Your task to perform on an android device: toggle data saver in the chrome app Image 0: 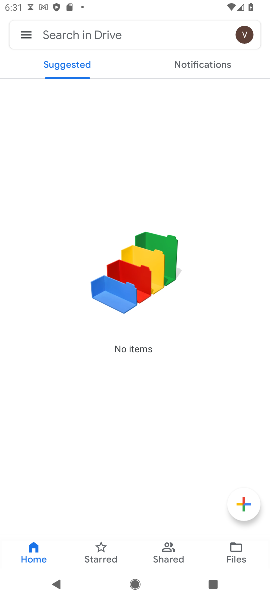
Step 0: press home button
Your task to perform on an android device: toggle data saver in the chrome app Image 1: 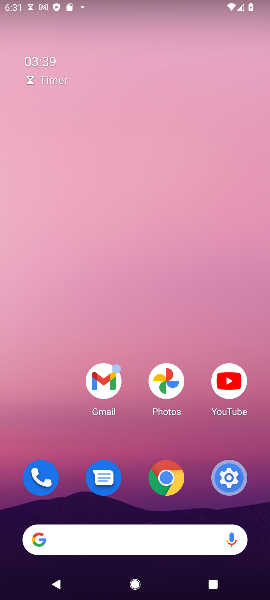
Step 1: drag from (162, 491) to (158, 193)
Your task to perform on an android device: toggle data saver in the chrome app Image 2: 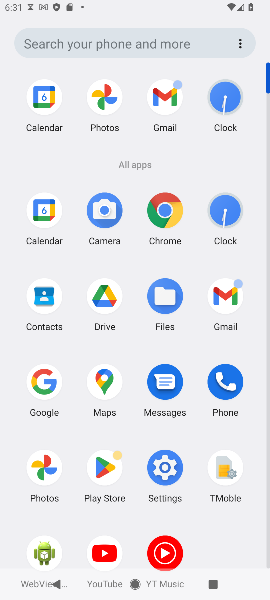
Step 2: click (160, 222)
Your task to perform on an android device: toggle data saver in the chrome app Image 3: 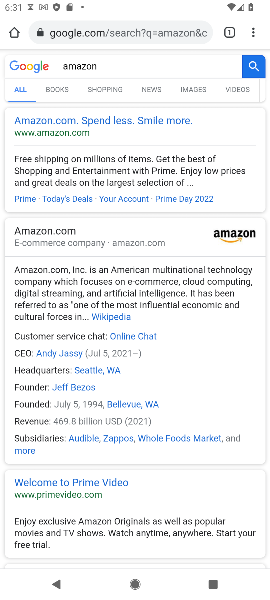
Step 3: click (255, 25)
Your task to perform on an android device: toggle data saver in the chrome app Image 4: 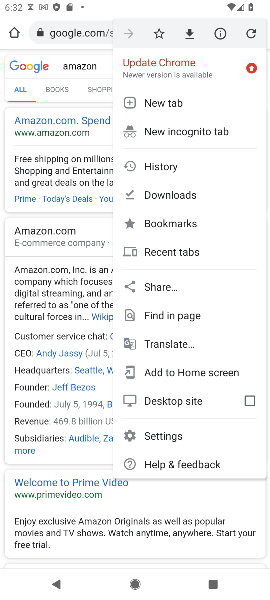
Step 4: click (153, 434)
Your task to perform on an android device: toggle data saver in the chrome app Image 5: 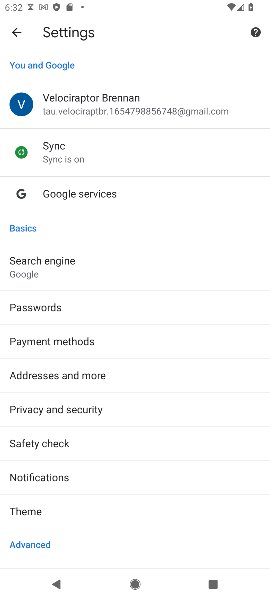
Step 5: drag from (72, 453) to (100, 312)
Your task to perform on an android device: toggle data saver in the chrome app Image 6: 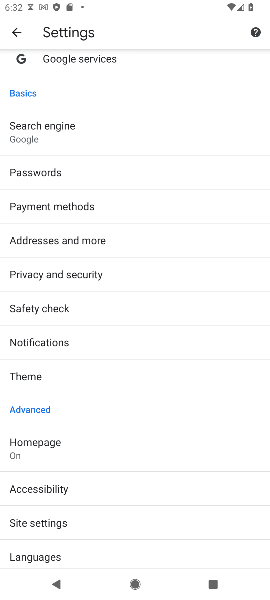
Step 6: drag from (59, 525) to (85, 376)
Your task to perform on an android device: toggle data saver in the chrome app Image 7: 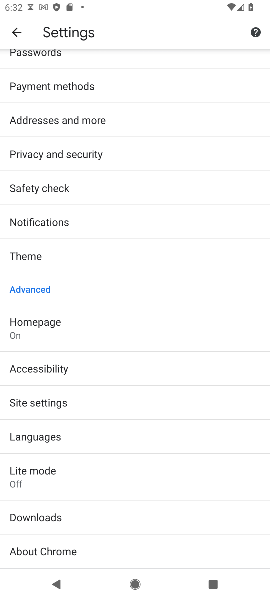
Step 7: click (43, 479)
Your task to perform on an android device: toggle data saver in the chrome app Image 8: 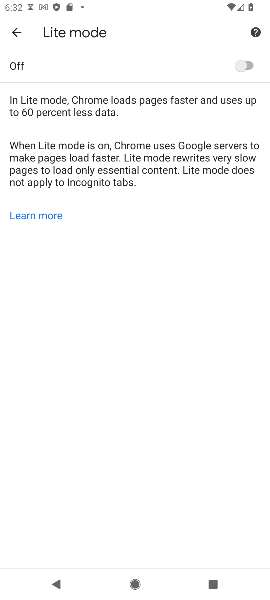
Step 8: click (222, 56)
Your task to perform on an android device: toggle data saver in the chrome app Image 9: 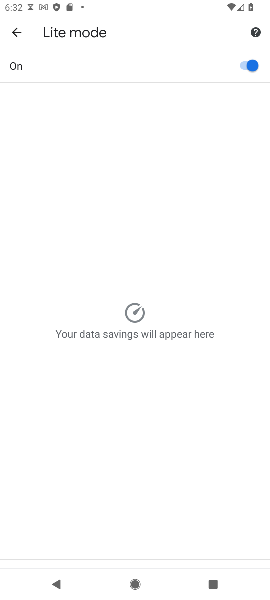
Step 9: task complete